Your task to perform on an android device: turn off data saver in the chrome app Image 0: 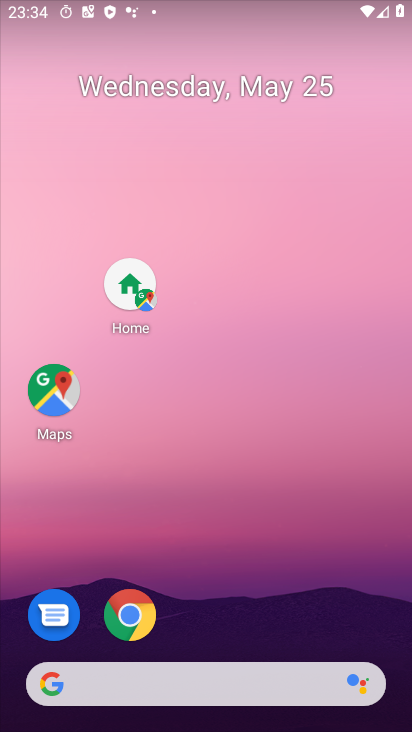
Step 0: press home button
Your task to perform on an android device: turn off data saver in the chrome app Image 1: 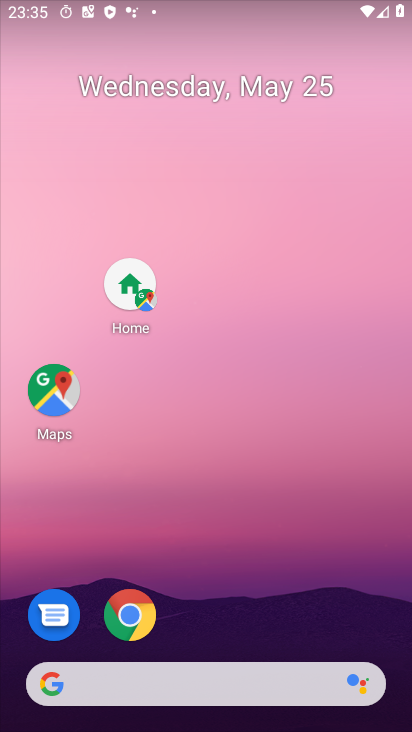
Step 1: click (136, 617)
Your task to perform on an android device: turn off data saver in the chrome app Image 2: 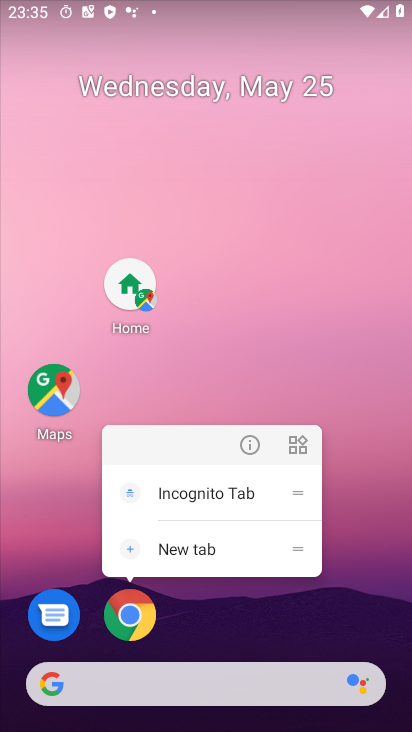
Step 2: click (139, 608)
Your task to perform on an android device: turn off data saver in the chrome app Image 3: 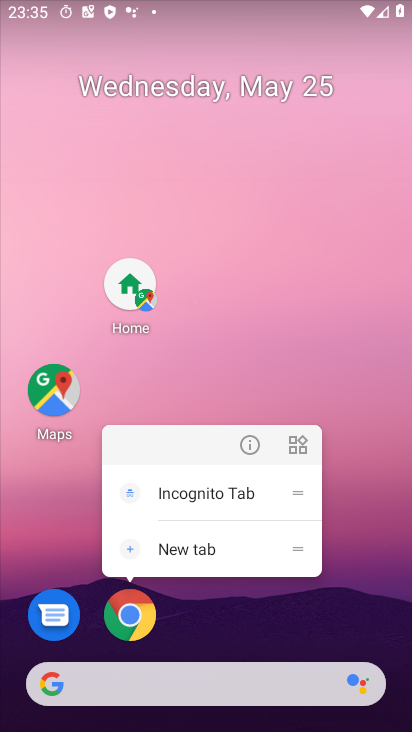
Step 3: click (139, 608)
Your task to perform on an android device: turn off data saver in the chrome app Image 4: 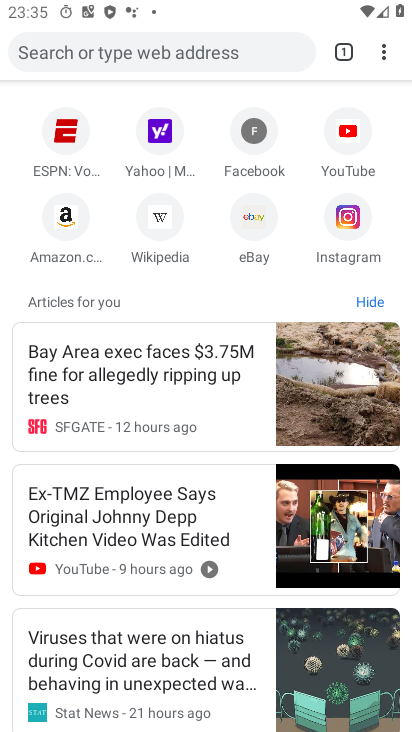
Step 4: drag from (384, 62) to (189, 441)
Your task to perform on an android device: turn off data saver in the chrome app Image 5: 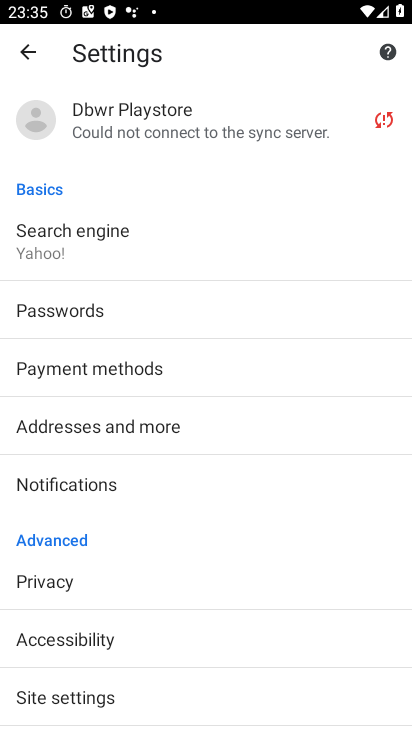
Step 5: drag from (250, 623) to (269, 354)
Your task to perform on an android device: turn off data saver in the chrome app Image 6: 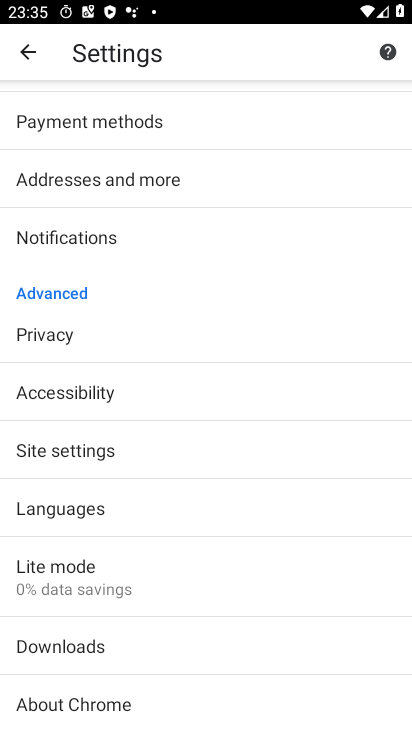
Step 6: click (55, 578)
Your task to perform on an android device: turn off data saver in the chrome app Image 7: 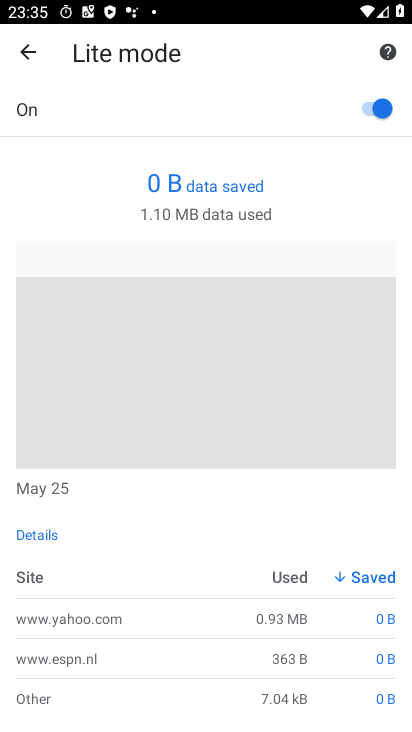
Step 7: click (387, 111)
Your task to perform on an android device: turn off data saver in the chrome app Image 8: 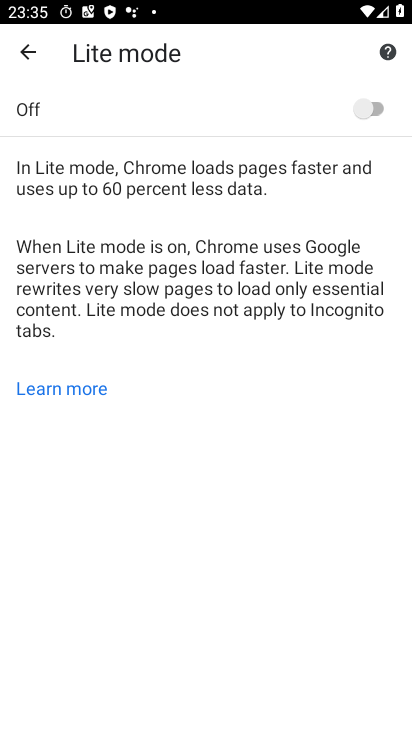
Step 8: task complete